Your task to perform on an android device: open app "Facebook" (install if not already installed), go to login, and select forgot password Image 0: 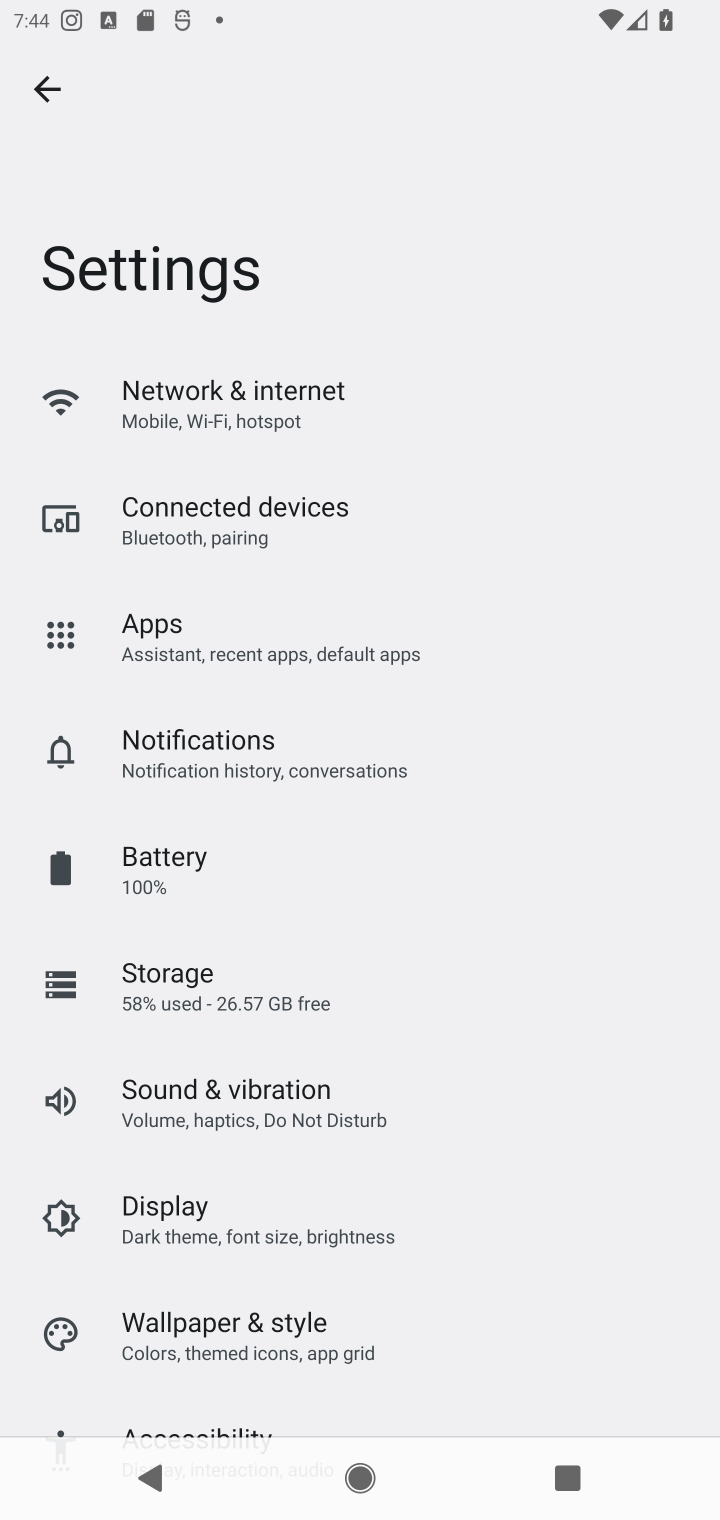
Step 0: press home button
Your task to perform on an android device: open app "Facebook" (install if not already installed), go to login, and select forgot password Image 1: 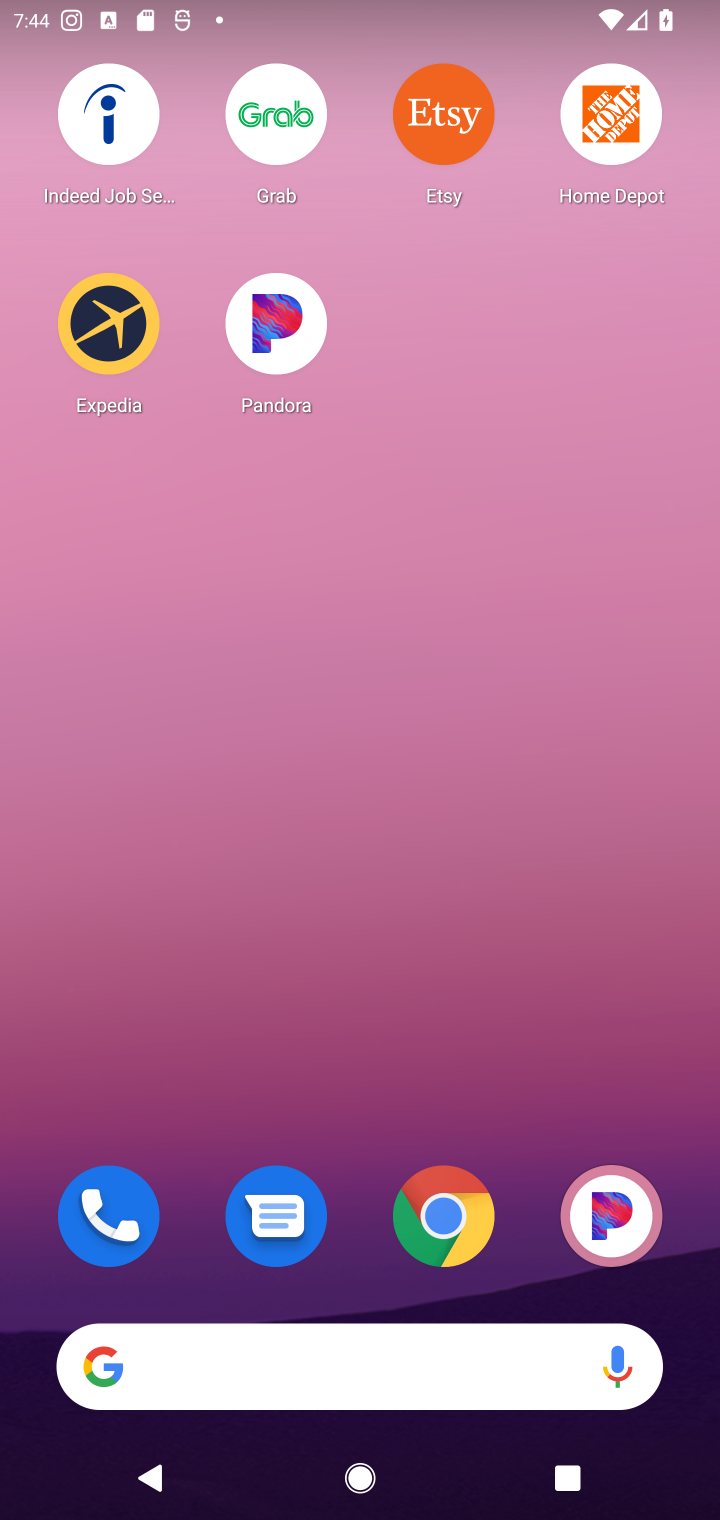
Step 1: drag from (272, 1126) to (404, 231)
Your task to perform on an android device: open app "Facebook" (install if not already installed), go to login, and select forgot password Image 2: 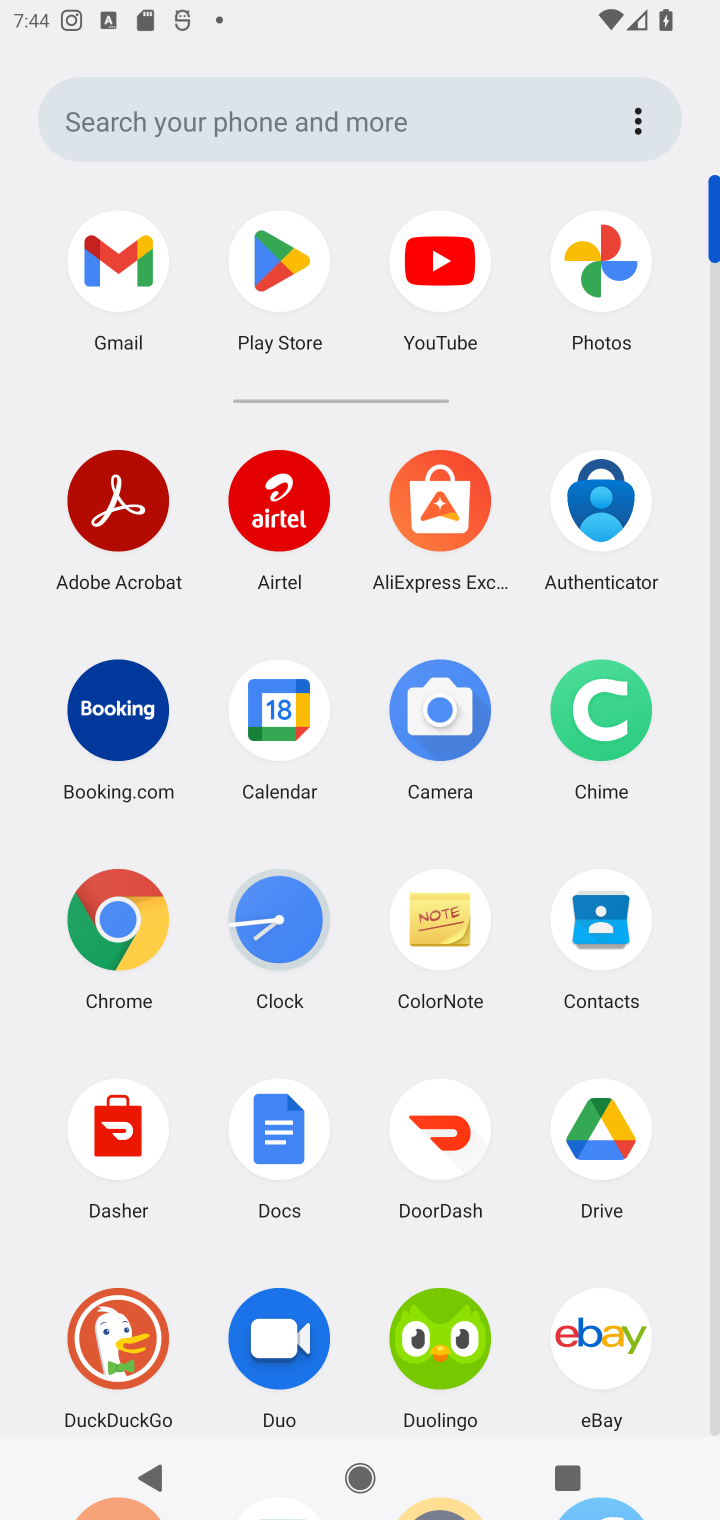
Step 2: click (301, 251)
Your task to perform on an android device: open app "Facebook" (install if not already installed), go to login, and select forgot password Image 3: 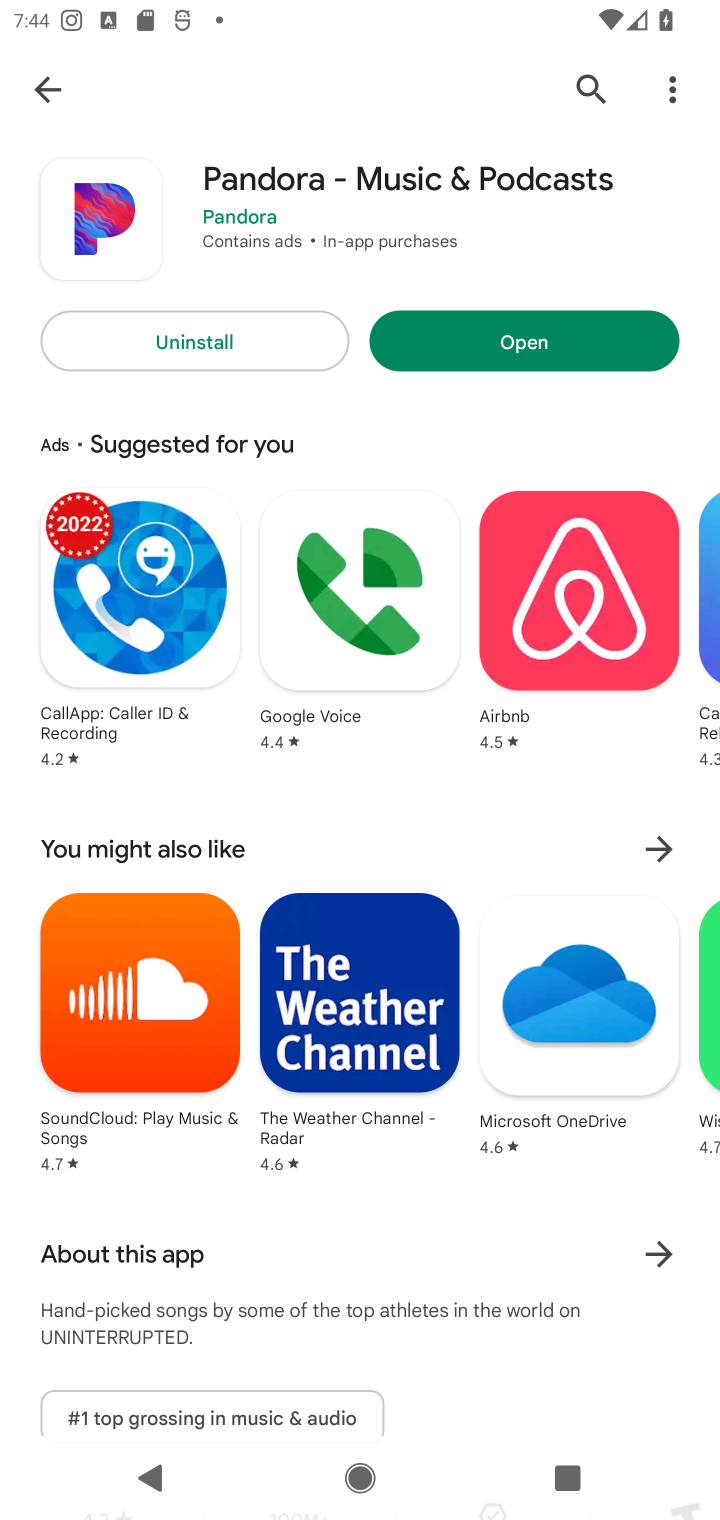
Step 3: click (581, 76)
Your task to perform on an android device: open app "Facebook" (install if not already installed), go to login, and select forgot password Image 4: 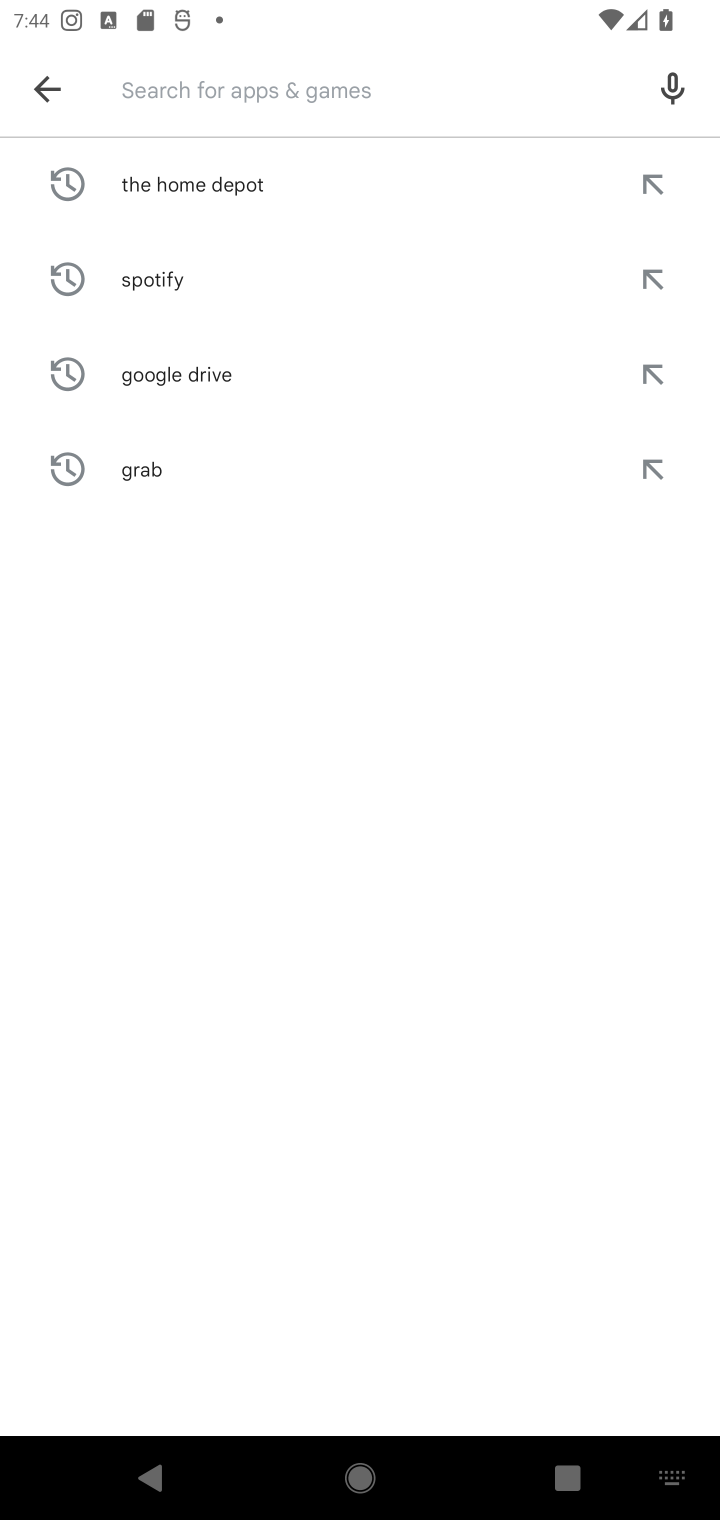
Step 4: type "Facebook""
Your task to perform on an android device: open app "Facebook" (install if not already installed), go to login, and select forgot password Image 5: 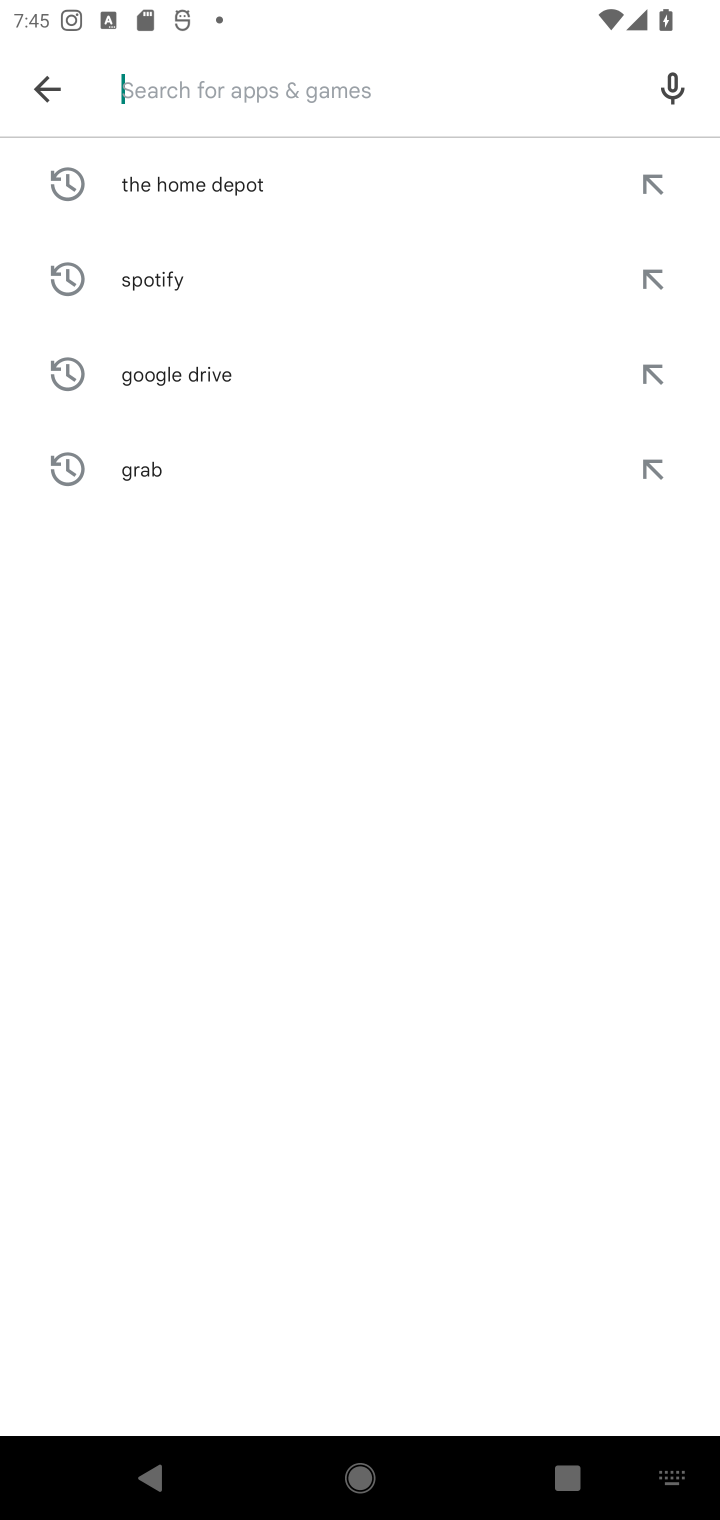
Step 5: type "Facebook"
Your task to perform on an android device: open app "Facebook" (install if not already installed), go to login, and select forgot password Image 6: 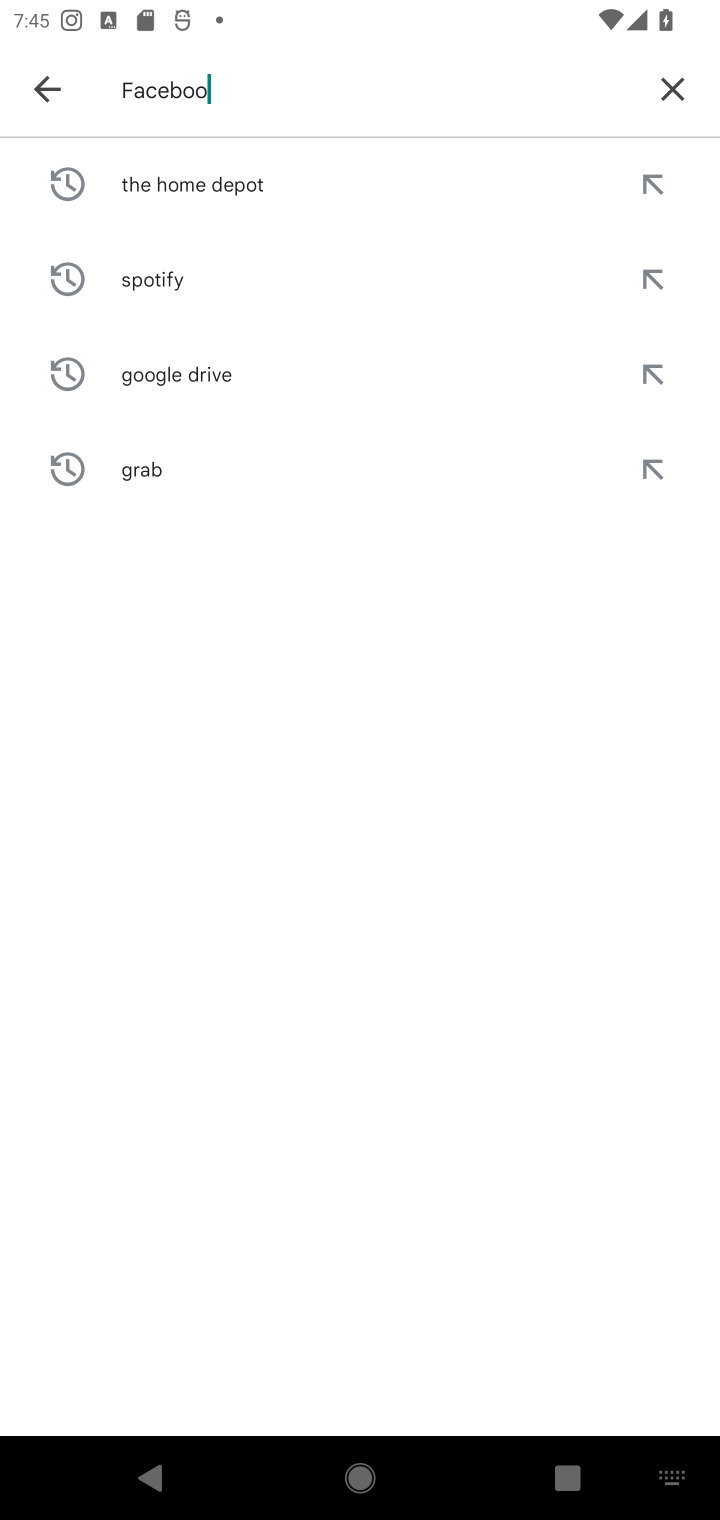
Step 6: type ""
Your task to perform on an android device: open app "Facebook" (install if not already installed), go to login, and select forgot password Image 7: 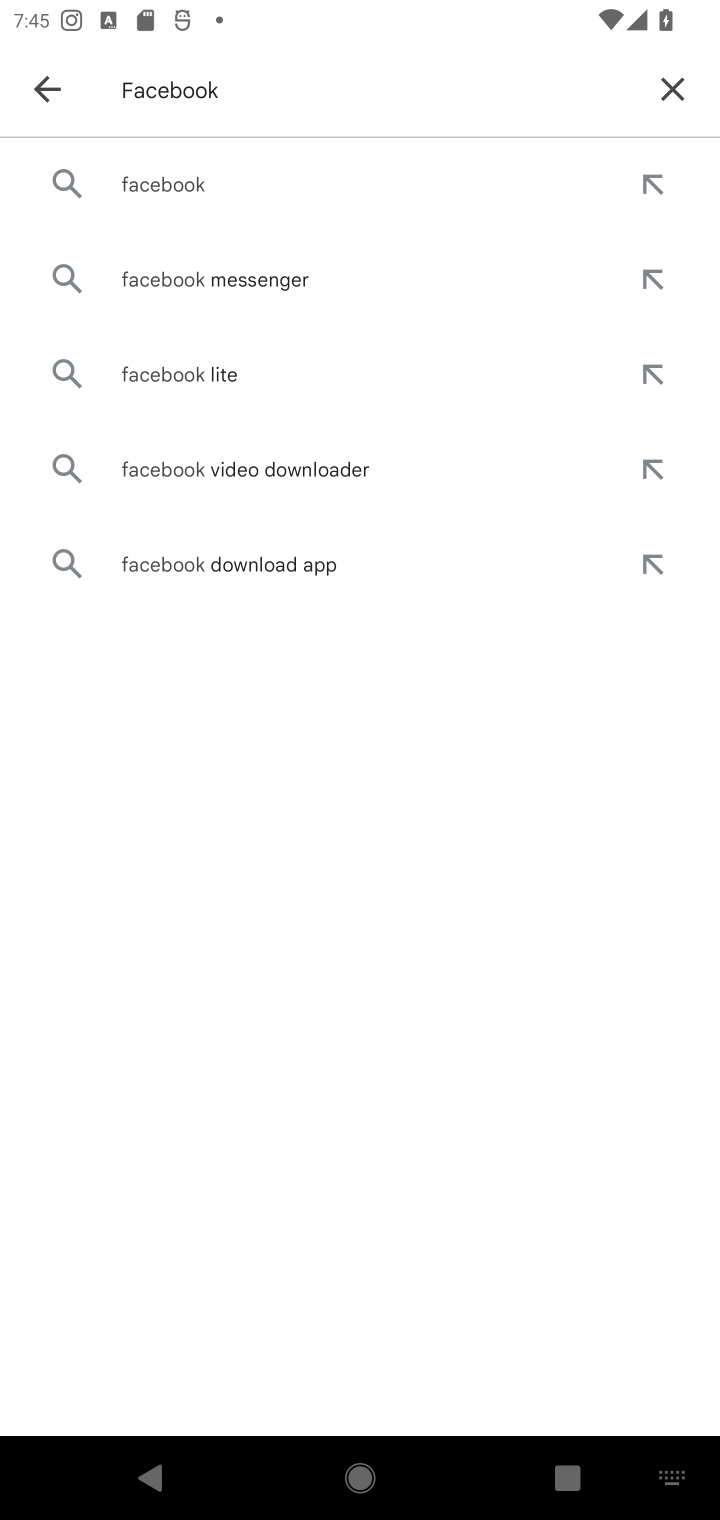
Step 7: click (242, 165)
Your task to perform on an android device: open app "Facebook" (install if not already installed), go to login, and select forgot password Image 8: 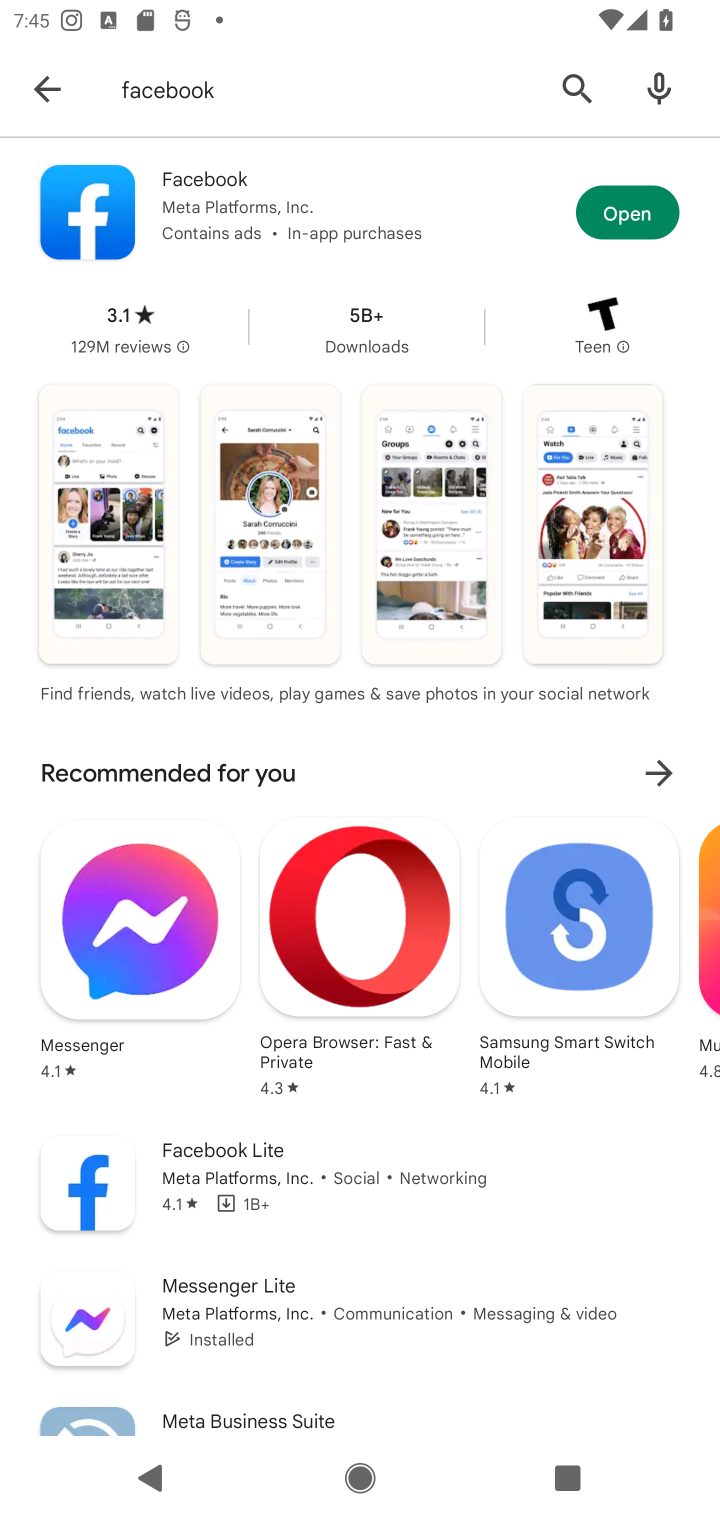
Step 8: click (601, 204)
Your task to perform on an android device: open app "Facebook" (install if not already installed), go to login, and select forgot password Image 9: 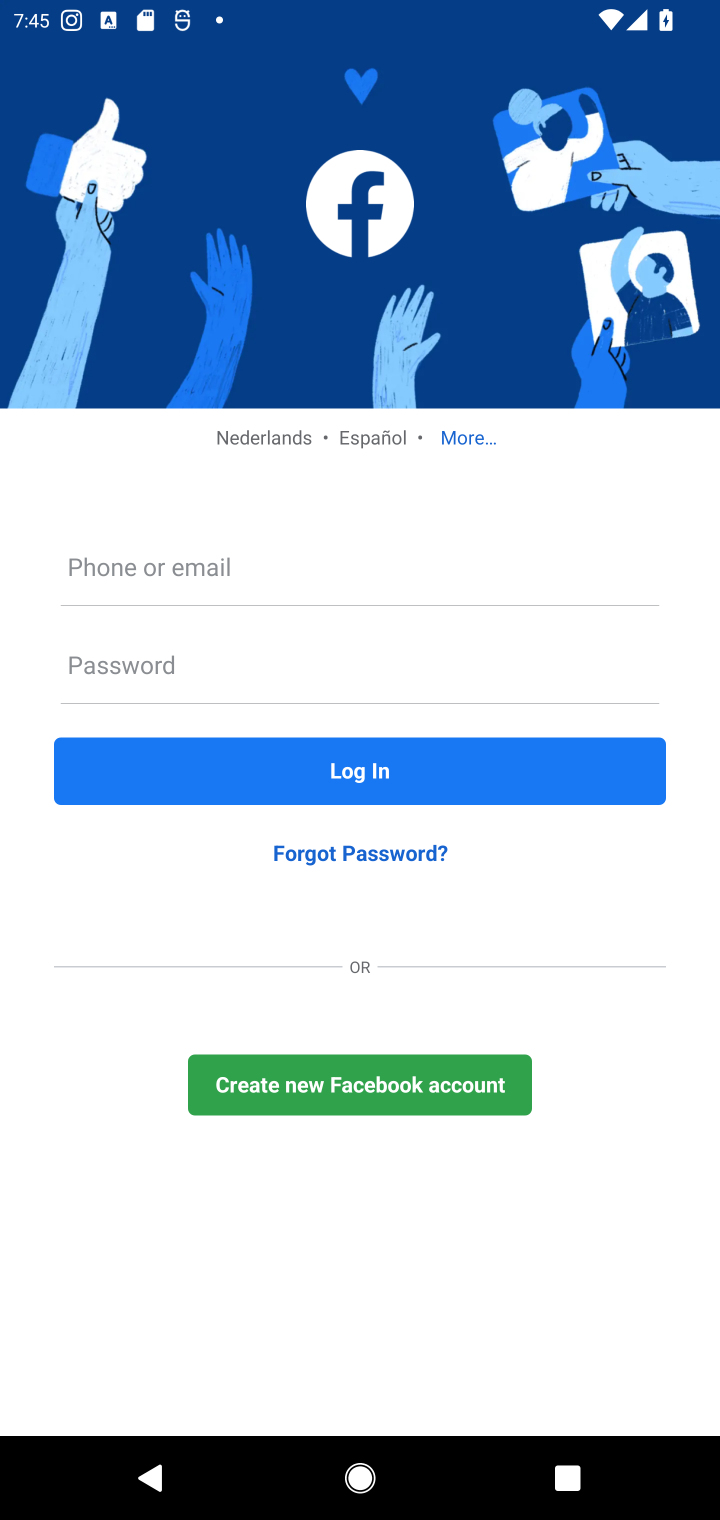
Step 9: task complete